Your task to perform on an android device: change timer sound Image 0: 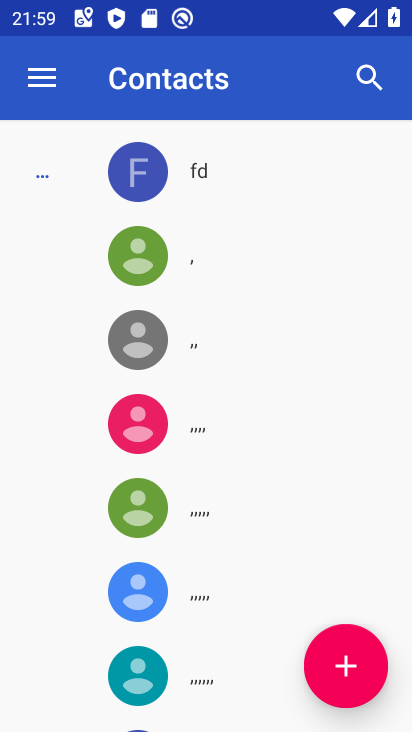
Step 0: press home button
Your task to perform on an android device: change timer sound Image 1: 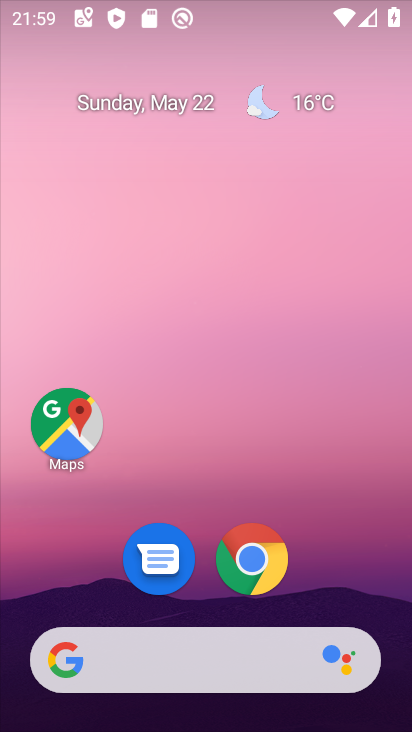
Step 1: drag from (229, 711) to (216, 180)
Your task to perform on an android device: change timer sound Image 2: 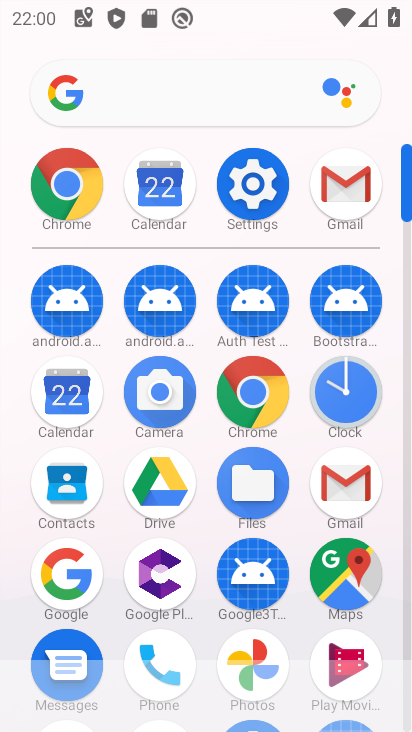
Step 2: click (343, 417)
Your task to perform on an android device: change timer sound Image 3: 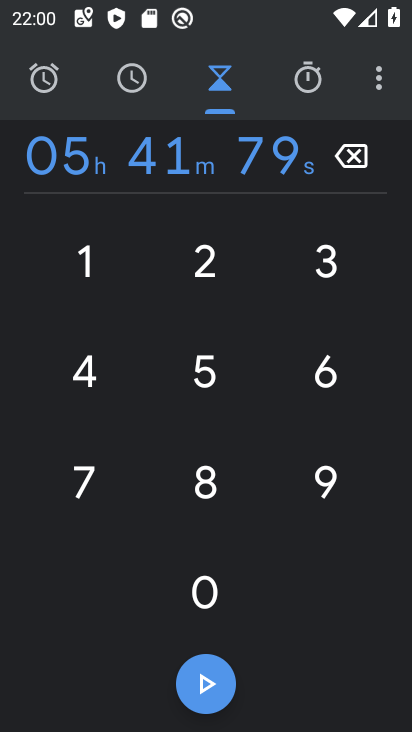
Step 3: click (381, 92)
Your task to perform on an android device: change timer sound Image 4: 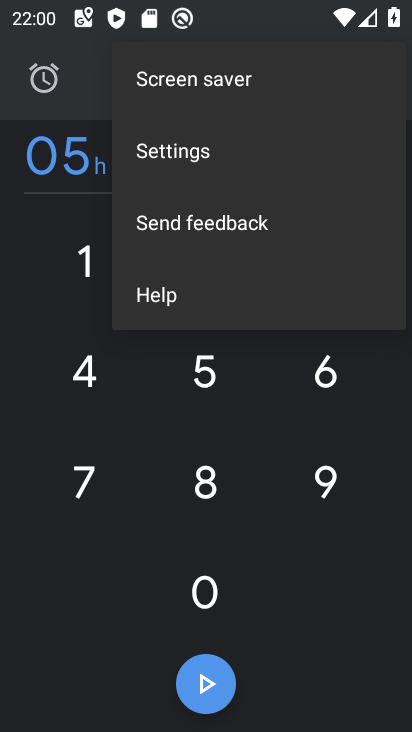
Step 4: click (204, 159)
Your task to perform on an android device: change timer sound Image 5: 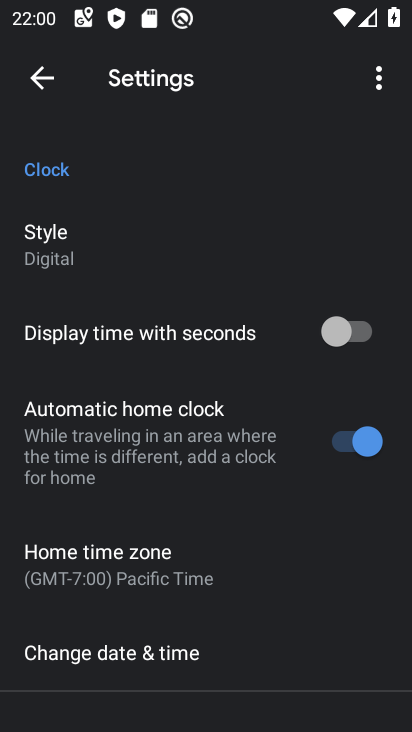
Step 5: drag from (186, 580) to (174, 239)
Your task to perform on an android device: change timer sound Image 6: 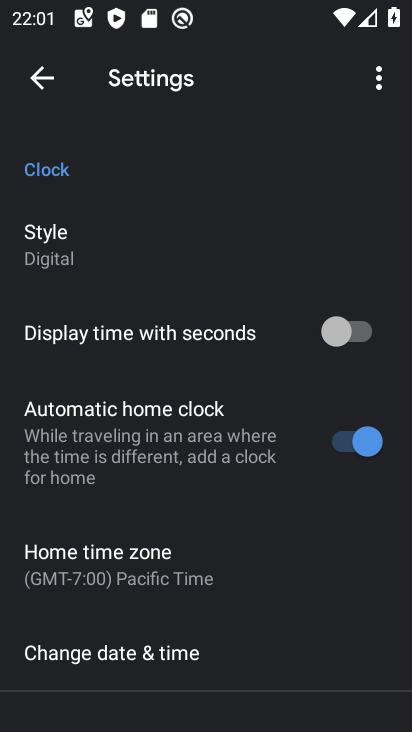
Step 6: drag from (206, 635) to (195, 257)
Your task to perform on an android device: change timer sound Image 7: 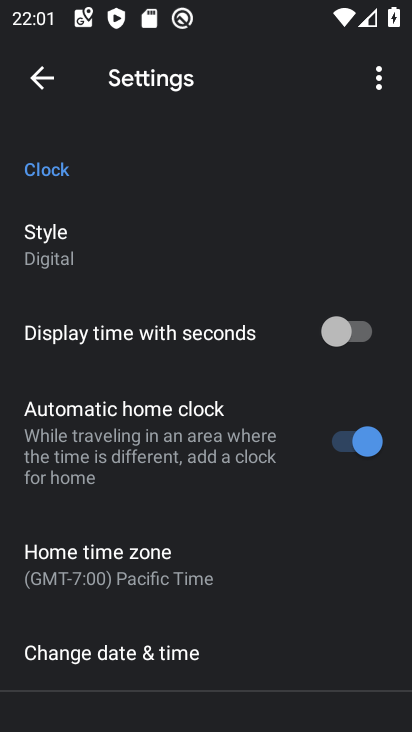
Step 7: drag from (232, 570) to (197, 198)
Your task to perform on an android device: change timer sound Image 8: 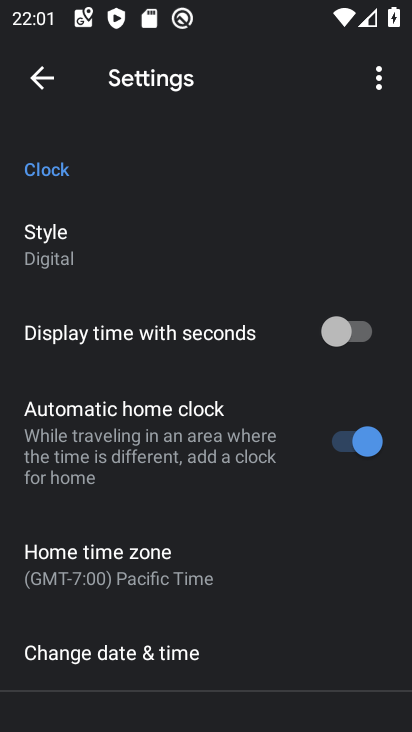
Step 8: drag from (182, 213) to (266, 634)
Your task to perform on an android device: change timer sound Image 9: 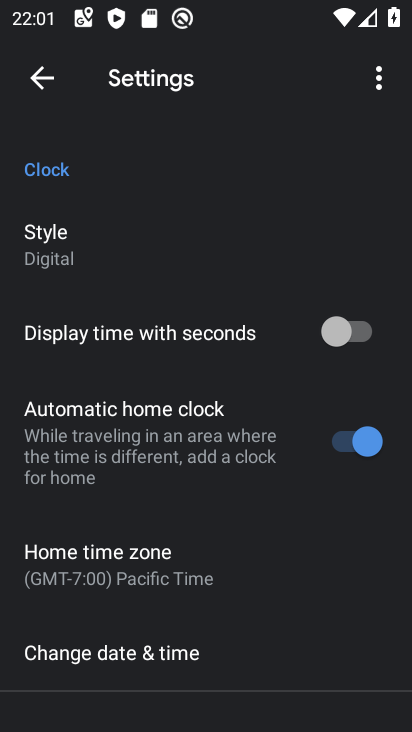
Step 9: drag from (204, 602) to (143, 174)
Your task to perform on an android device: change timer sound Image 10: 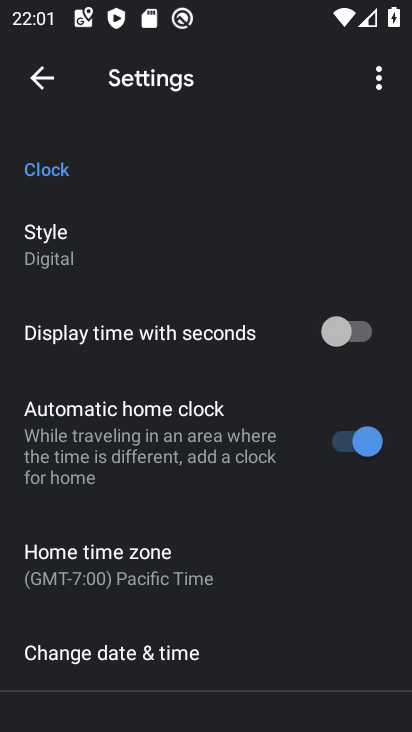
Step 10: drag from (317, 594) to (232, 113)
Your task to perform on an android device: change timer sound Image 11: 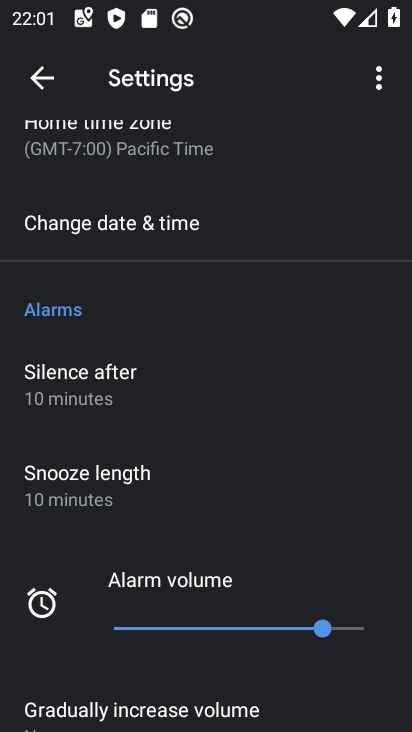
Step 11: drag from (167, 480) to (206, 103)
Your task to perform on an android device: change timer sound Image 12: 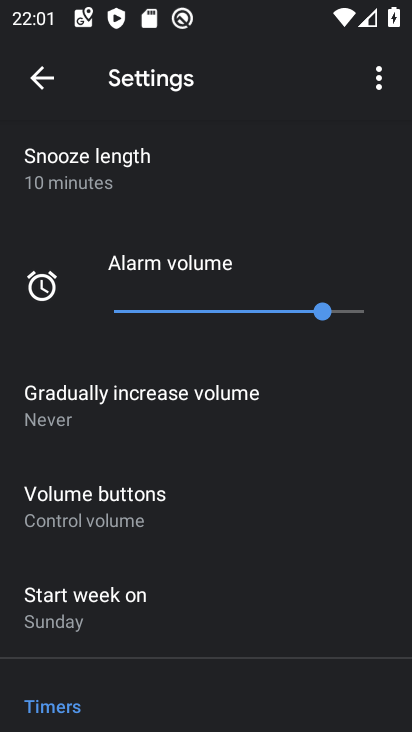
Step 12: drag from (172, 587) to (202, 304)
Your task to perform on an android device: change timer sound Image 13: 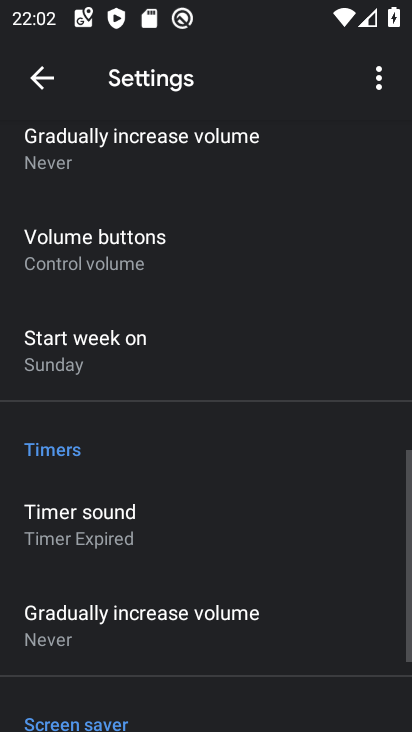
Step 13: click (135, 537)
Your task to perform on an android device: change timer sound Image 14: 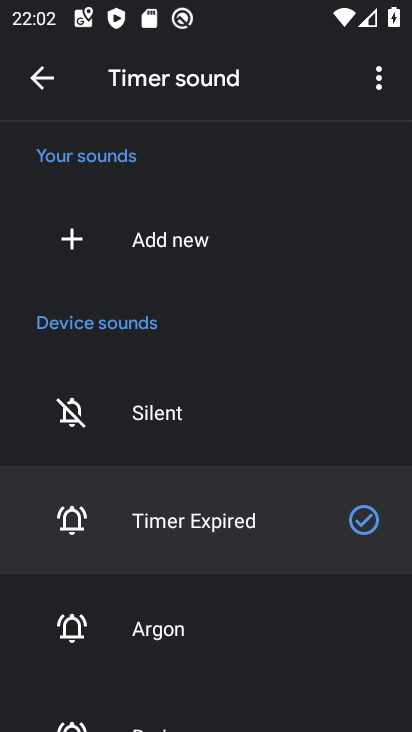
Step 14: click (184, 625)
Your task to perform on an android device: change timer sound Image 15: 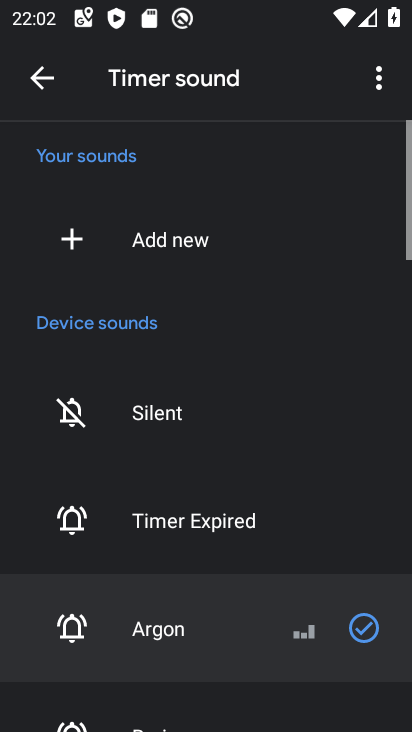
Step 15: task complete